Your task to perform on an android device: Do I have any events this weekend? Image 0: 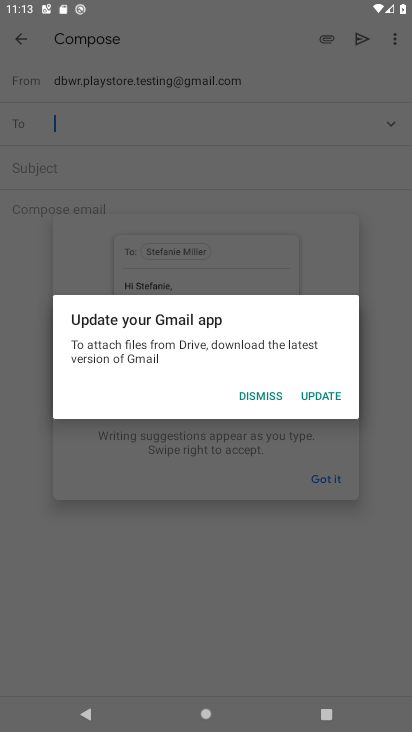
Step 0: press home button
Your task to perform on an android device: Do I have any events this weekend? Image 1: 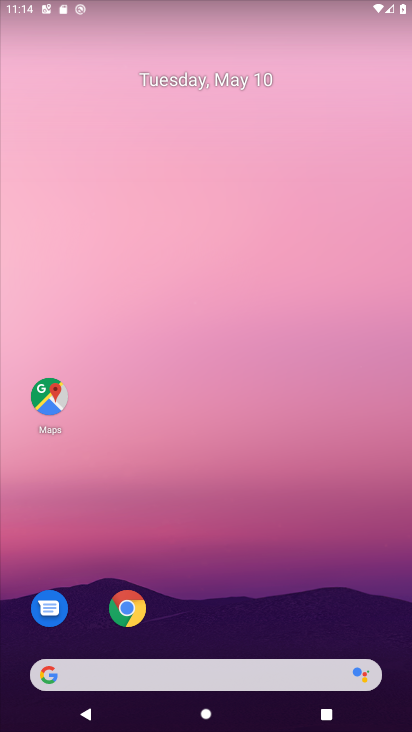
Step 1: drag from (199, 668) to (225, 119)
Your task to perform on an android device: Do I have any events this weekend? Image 2: 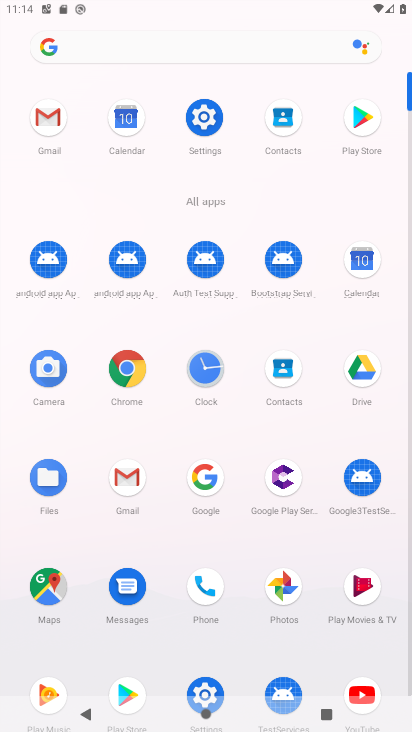
Step 2: click (363, 258)
Your task to perform on an android device: Do I have any events this weekend? Image 3: 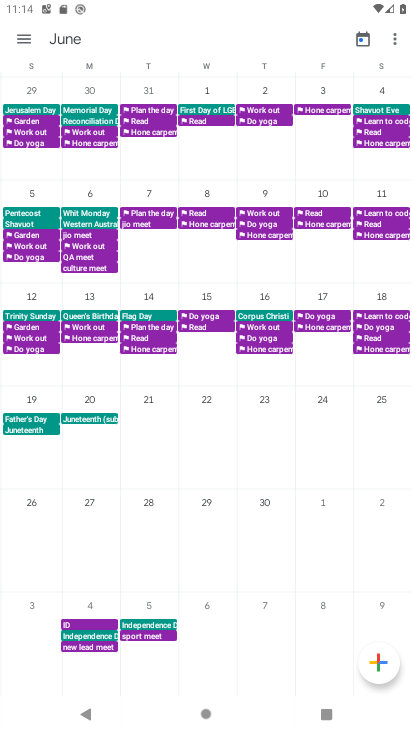
Step 3: click (25, 48)
Your task to perform on an android device: Do I have any events this weekend? Image 4: 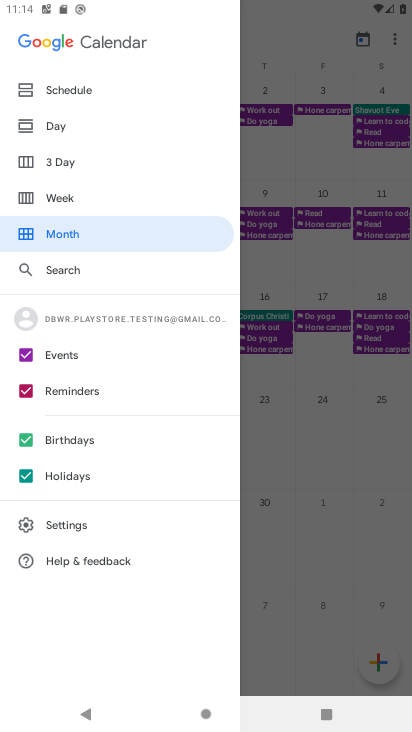
Step 4: click (84, 204)
Your task to perform on an android device: Do I have any events this weekend? Image 5: 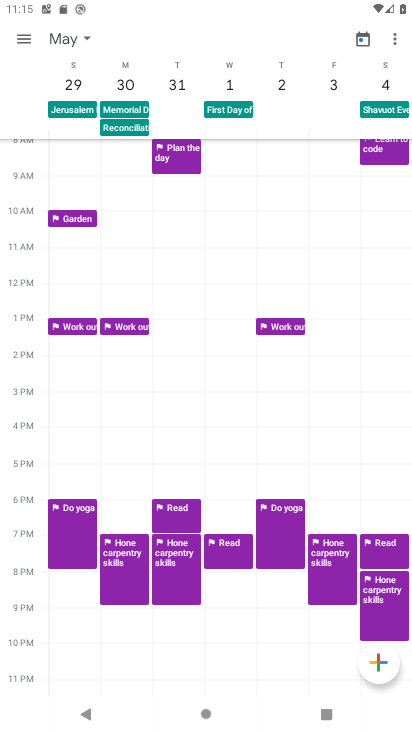
Step 5: task complete